Your task to perform on an android device: open wifi settings Image 0: 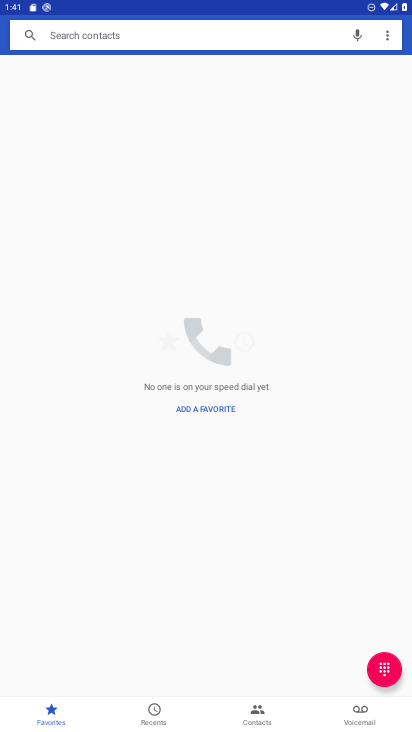
Step 0: press home button
Your task to perform on an android device: open wifi settings Image 1: 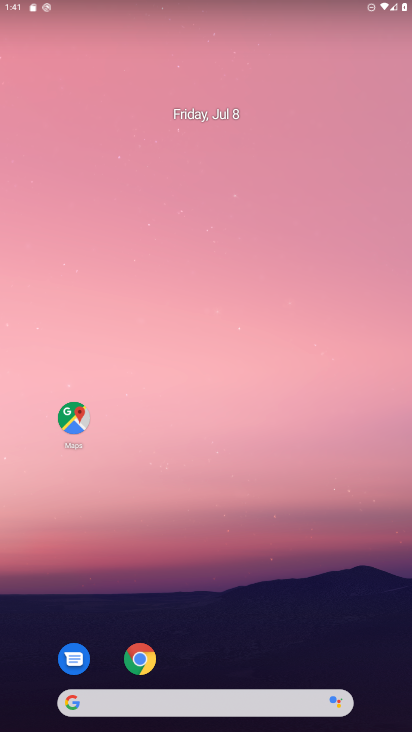
Step 1: drag from (214, 652) to (280, 5)
Your task to perform on an android device: open wifi settings Image 2: 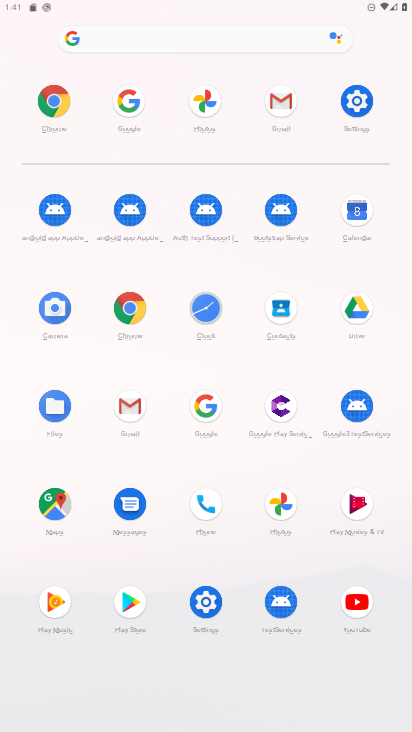
Step 2: click (206, 601)
Your task to perform on an android device: open wifi settings Image 3: 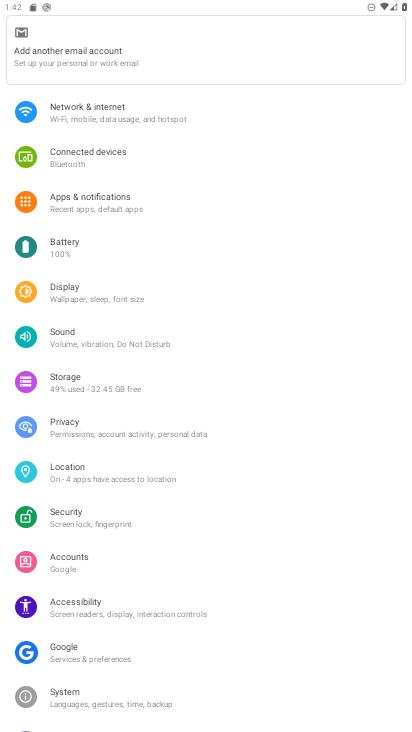
Step 3: click (106, 112)
Your task to perform on an android device: open wifi settings Image 4: 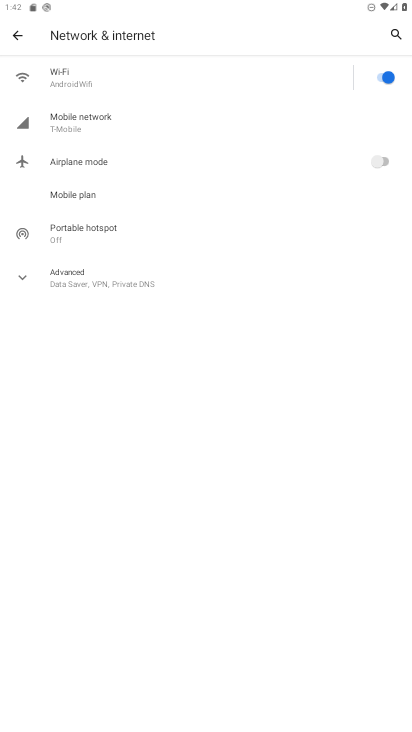
Step 4: click (62, 80)
Your task to perform on an android device: open wifi settings Image 5: 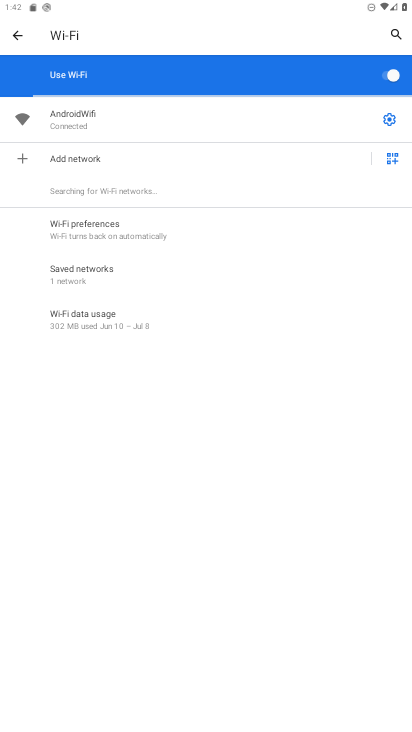
Step 5: click (386, 121)
Your task to perform on an android device: open wifi settings Image 6: 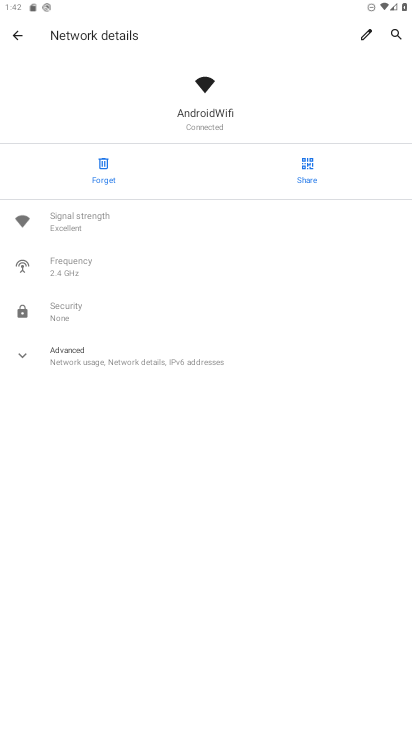
Step 6: task complete